Your task to perform on an android device: Go to ESPN.com Image 0: 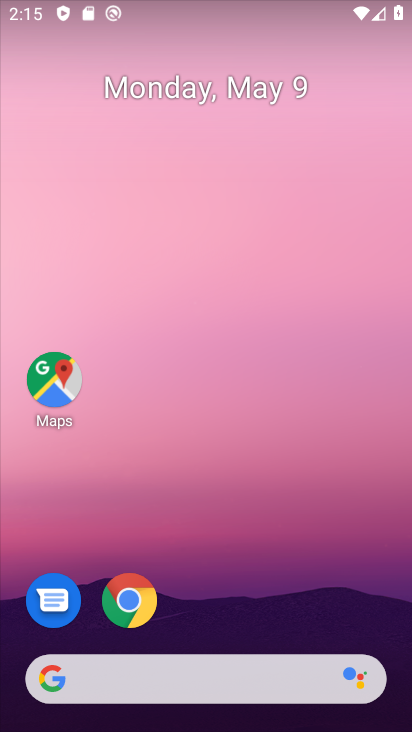
Step 0: click (123, 591)
Your task to perform on an android device: Go to ESPN.com Image 1: 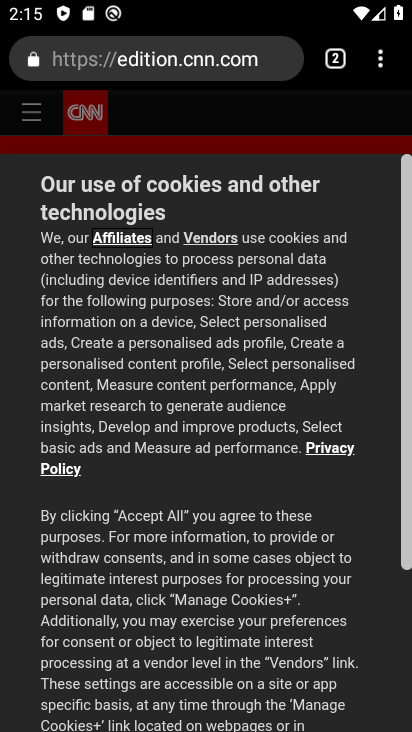
Step 1: click (339, 60)
Your task to perform on an android device: Go to ESPN.com Image 2: 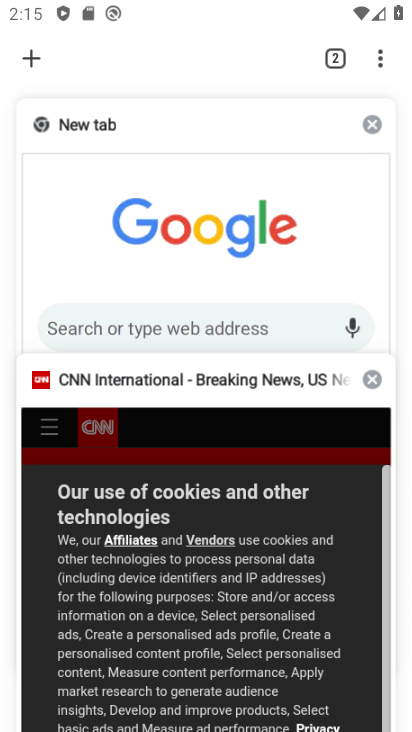
Step 2: click (28, 59)
Your task to perform on an android device: Go to ESPN.com Image 3: 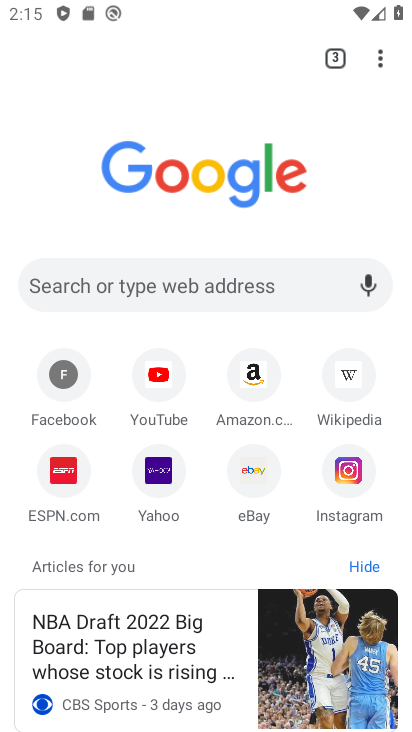
Step 3: click (133, 274)
Your task to perform on an android device: Go to ESPN.com Image 4: 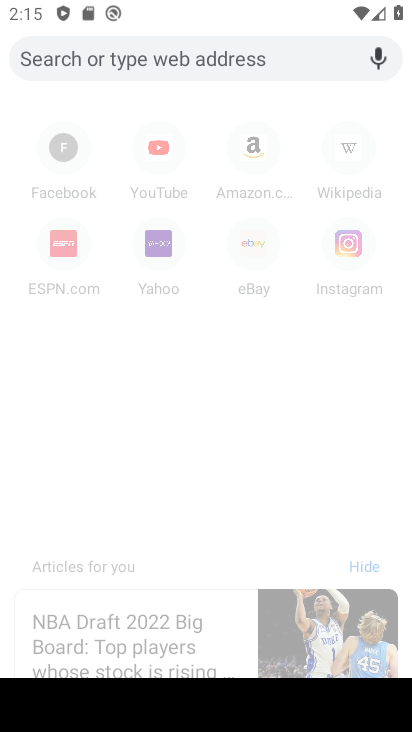
Step 4: click (58, 266)
Your task to perform on an android device: Go to ESPN.com Image 5: 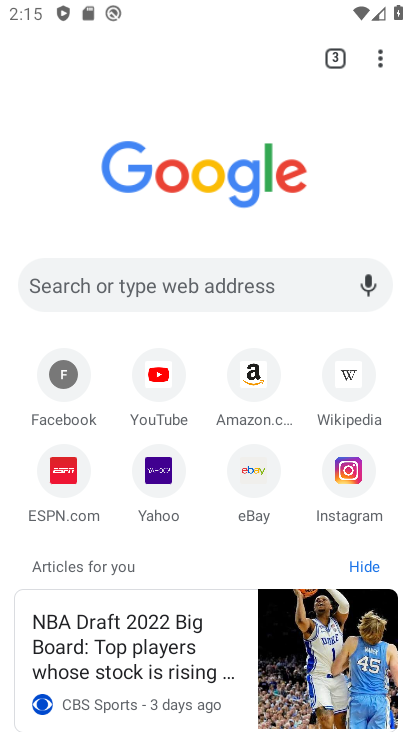
Step 5: click (71, 503)
Your task to perform on an android device: Go to ESPN.com Image 6: 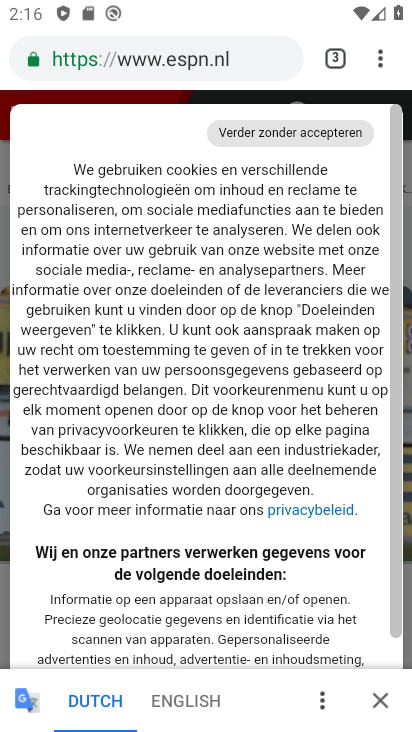
Step 6: task complete